Your task to perform on an android device: Search for seafood restaurants on Google Maps Image 0: 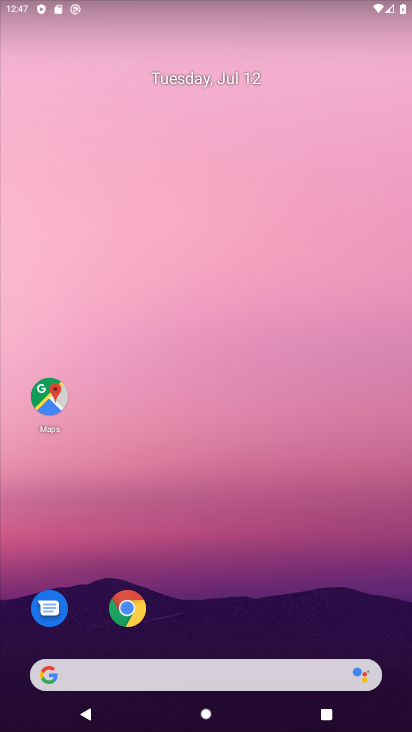
Step 0: drag from (266, 668) to (259, 295)
Your task to perform on an android device: Search for seafood restaurants on Google Maps Image 1: 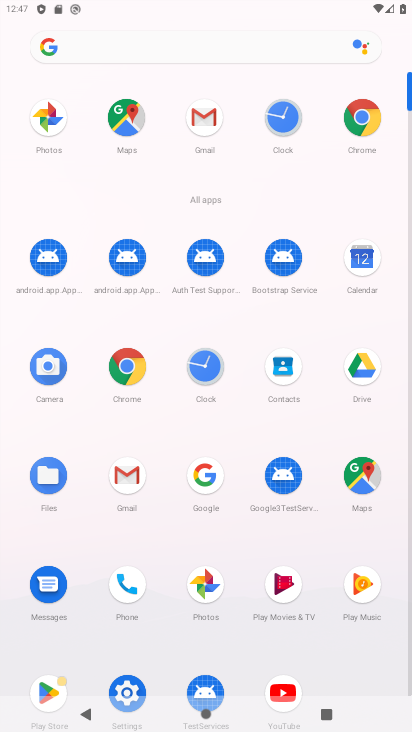
Step 1: click (345, 471)
Your task to perform on an android device: Search for seafood restaurants on Google Maps Image 2: 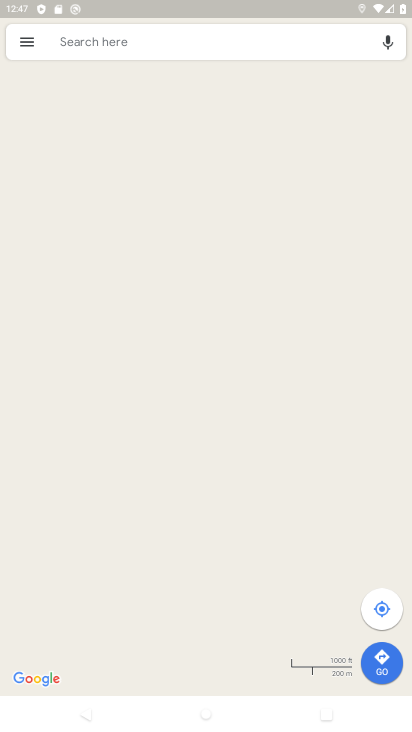
Step 2: click (105, 34)
Your task to perform on an android device: Search for seafood restaurants on Google Maps Image 3: 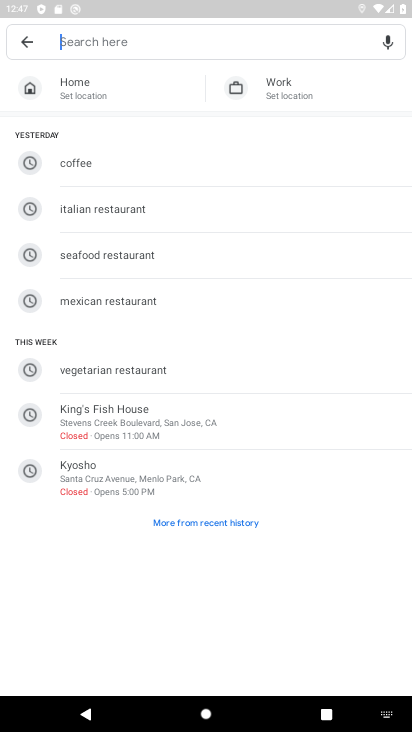
Step 3: click (184, 248)
Your task to perform on an android device: Search for seafood restaurants on Google Maps Image 4: 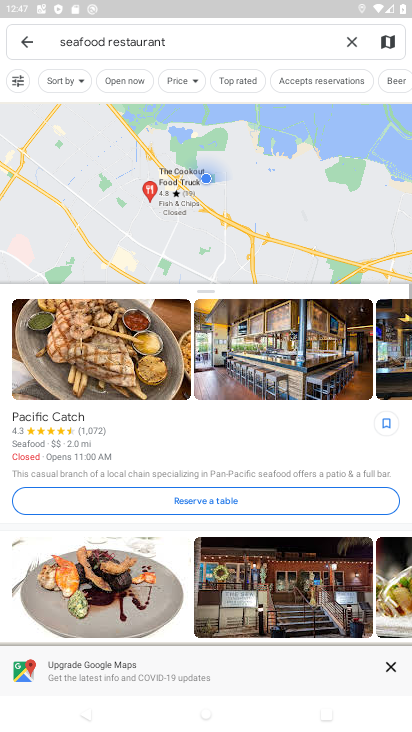
Step 4: task complete